Your task to perform on an android device: Check the weather Image 0: 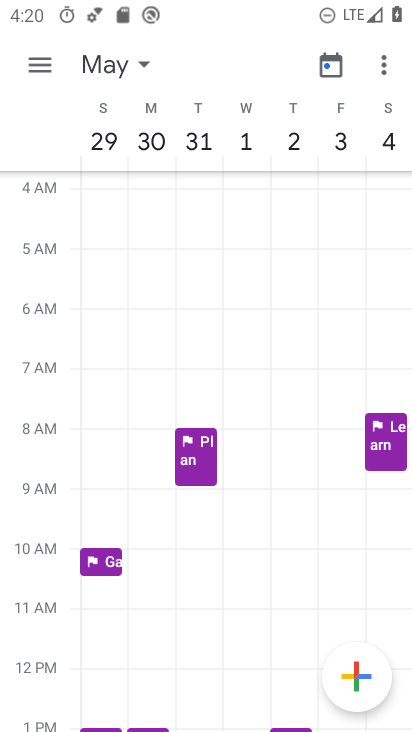
Step 0: press home button
Your task to perform on an android device: Check the weather Image 1: 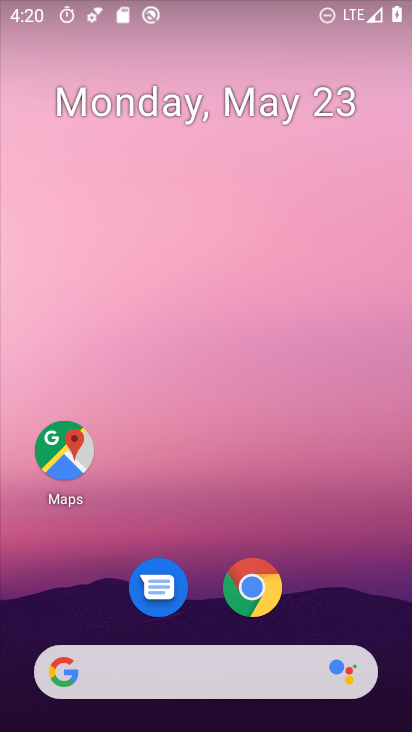
Step 1: drag from (204, 623) to (182, 59)
Your task to perform on an android device: Check the weather Image 2: 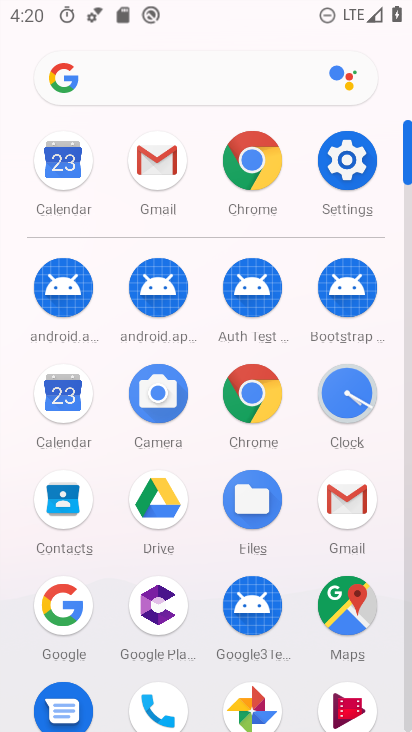
Step 2: click (225, 78)
Your task to perform on an android device: Check the weather Image 3: 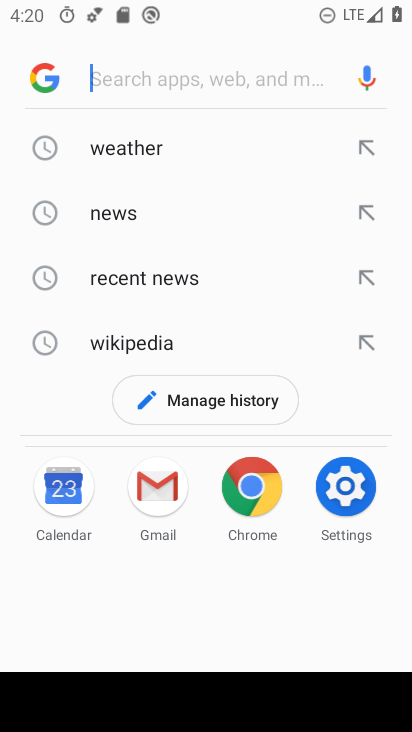
Step 3: click (186, 156)
Your task to perform on an android device: Check the weather Image 4: 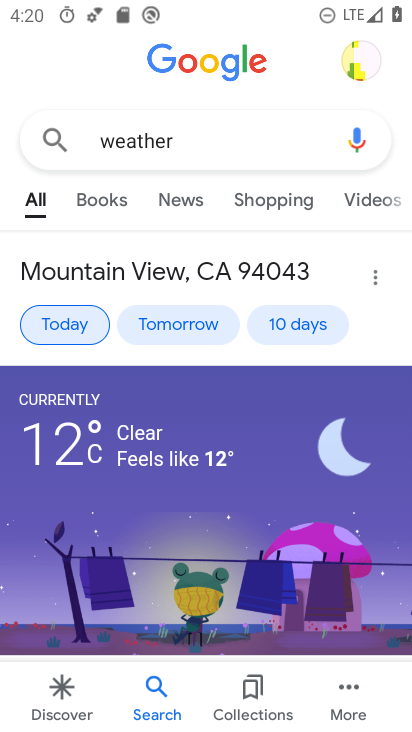
Step 4: task complete